Your task to perform on an android device: Go to network settings Image 0: 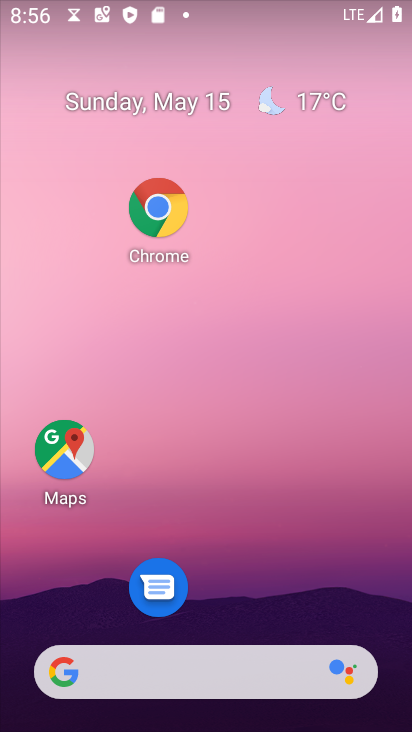
Step 0: drag from (264, 620) to (124, 145)
Your task to perform on an android device: Go to network settings Image 1: 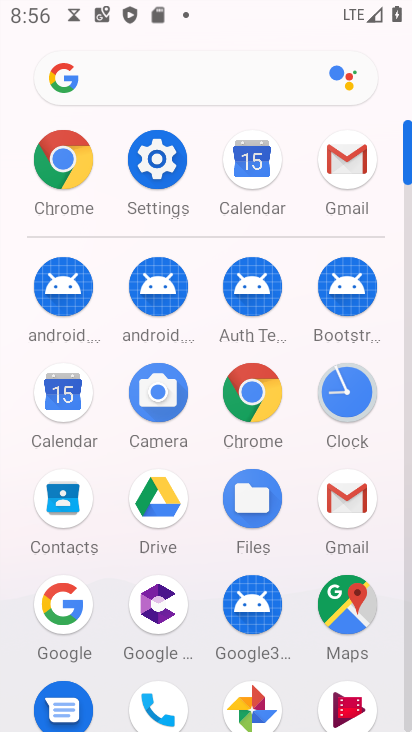
Step 1: click (157, 172)
Your task to perform on an android device: Go to network settings Image 2: 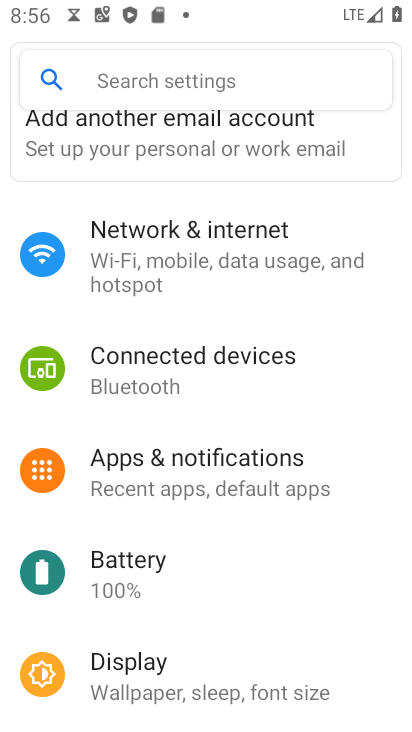
Step 2: click (143, 270)
Your task to perform on an android device: Go to network settings Image 3: 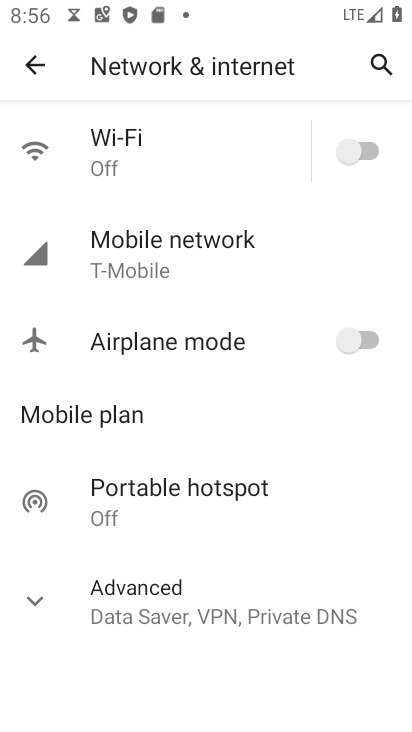
Step 3: task complete